Your task to perform on an android device: toggle translation in the chrome app Image 0: 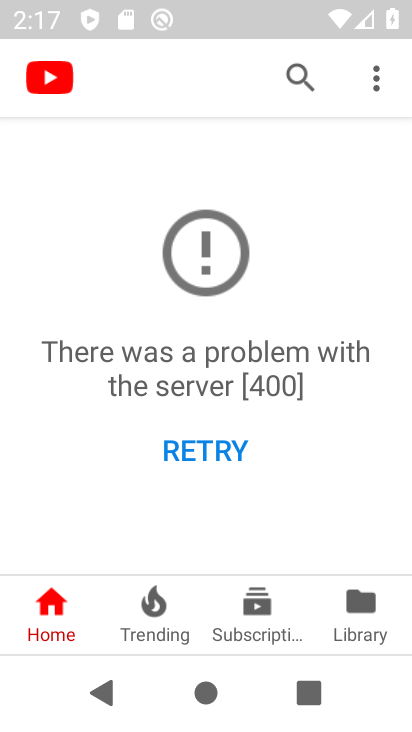
Step 0: press home button
Your task to perform on an android device: toggle translation in the chrome app Image 1: 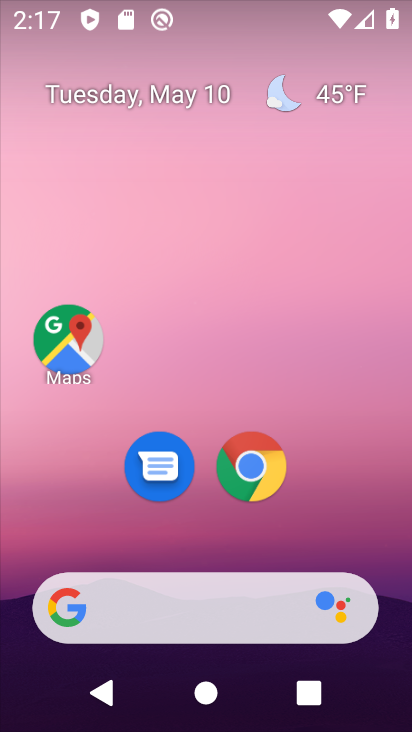
Step 1: click (243, 469)
Your task to perform on an android device: toggle translation in the chrome app Image 2: 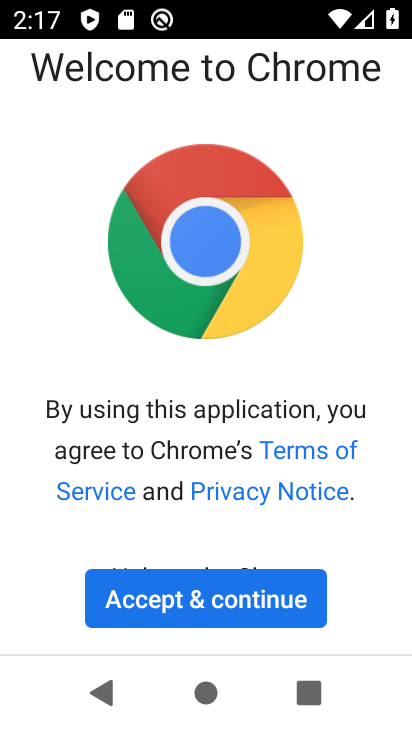
Step 2: click (281, 596)
Your task to perform on an android device: toggle translation in the chrome app Image 3: 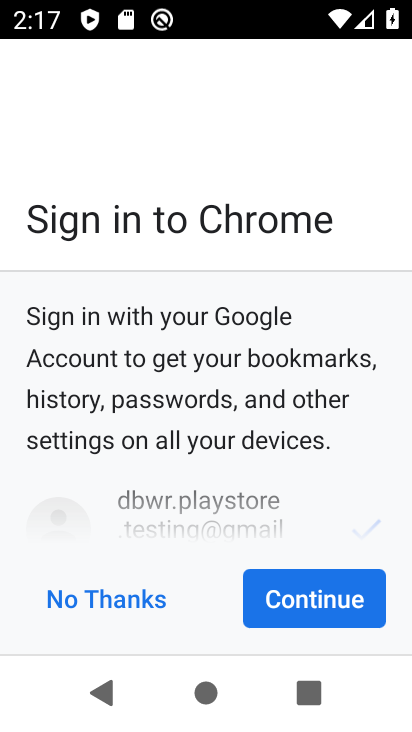
Step 3: click (298, 600)
Your task to perform on an android device: toggle translation in the chrome app Image 4: 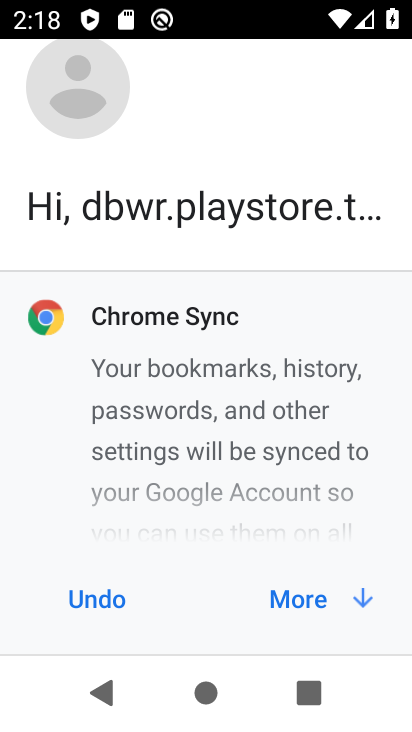
Step 4: click (298, 600)
Your task to perform on an android device: toggle translation in the chrome app Image 5: 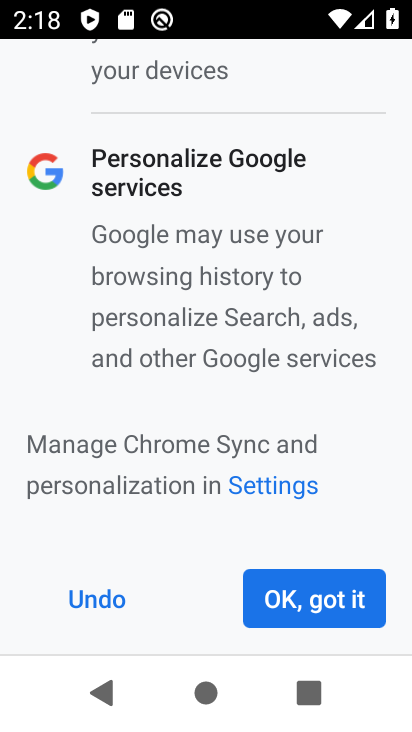
Step 5: click (298, 600)
Your task to perform on an android device: toggle translation in the chrome app Image 6: 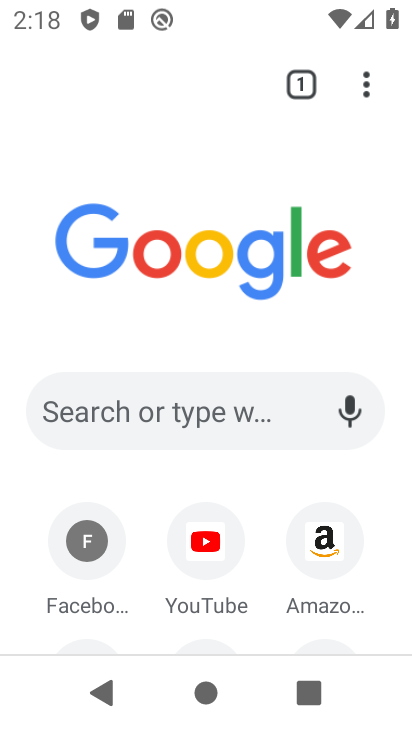
Step 6: click (361, 82)
Your task to perform on an android device: toggle translation in the chrome app Image 7: 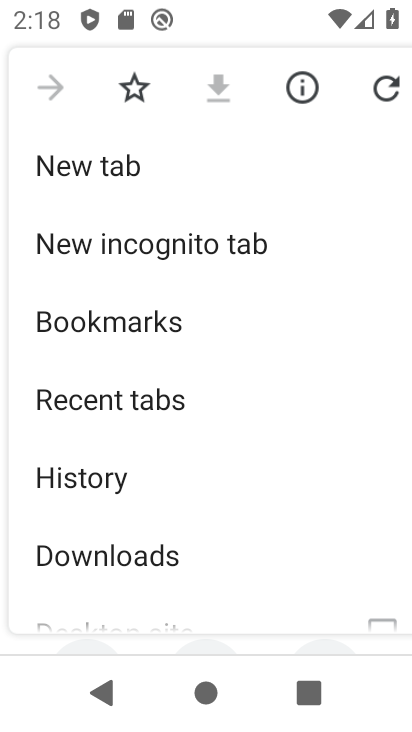
Step 7: drag from (290, 594) to (272, 334)
Your task to perform on an android device: toggle translation in the chrome app Image 8: 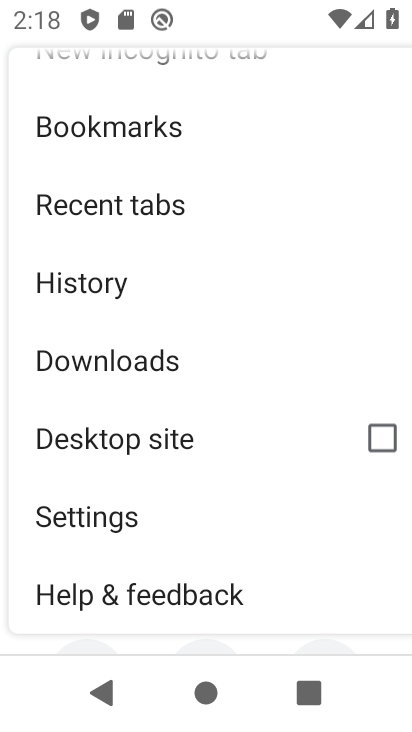
Step 8: click (83, 517)
Your task to perform on an android device: toggle translation in the chrome app Image 9: 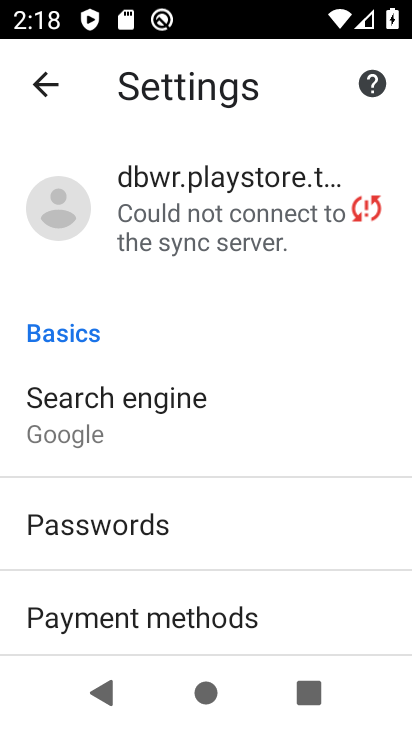
Step 9: drag from (303, 427) to (302, 338)
Your task to perform on an android device: toggle translation in the chrome app Image 10: 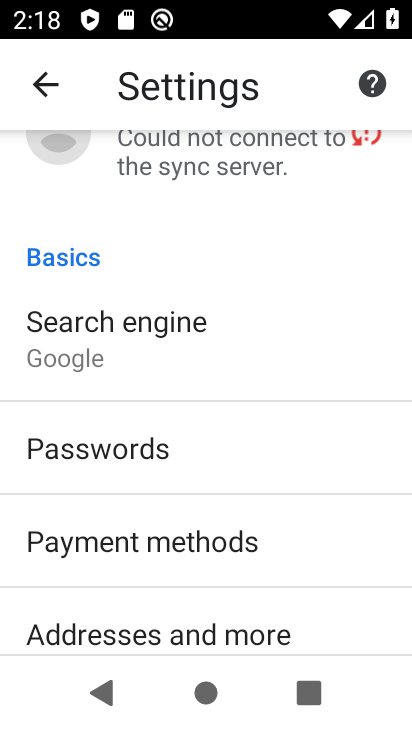
Step 10: drag from (338, 644) to (330, 320)
Your task to perform on an android device: toggle translation in the chrome app Image 11: 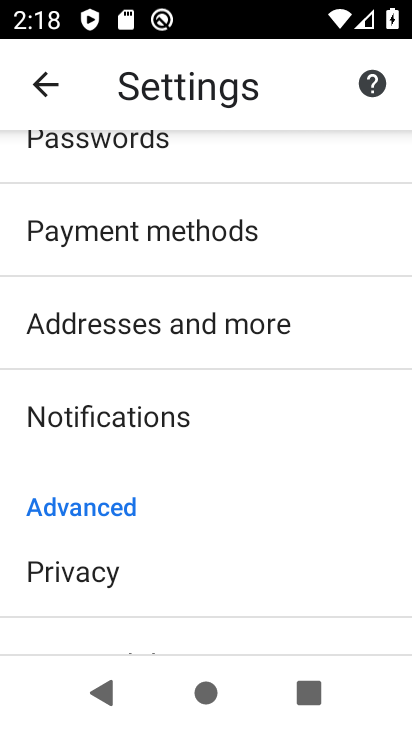
Step 11: drag from (308, 485) to (290, 331)
Your task to perform on an android device: toggle translation in the chrome app Image 12: 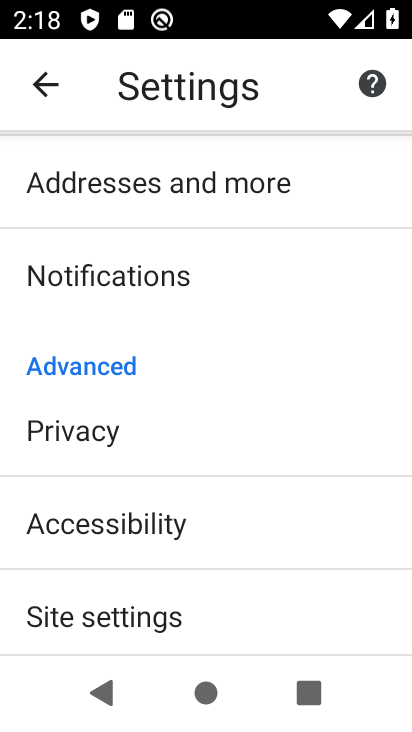
Step 12: drag from (281, 634) to (269, 365)
Your task to perform on an android device: toggle translation in the chrome app Image 13: 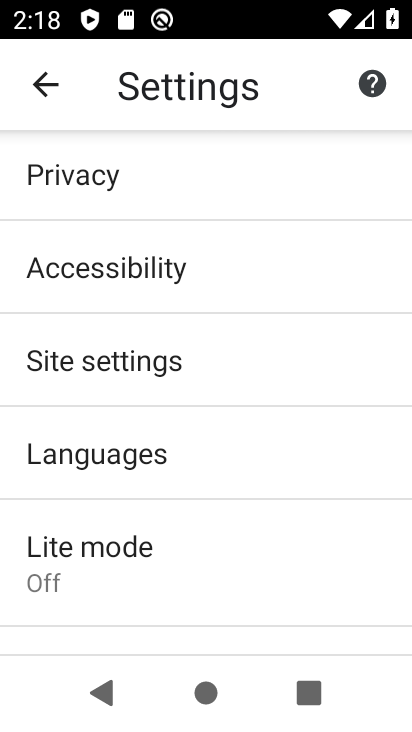
Step 13: click (108, 462)
Your task to perform on an android device: toggle translation in the chrome app Image 14: 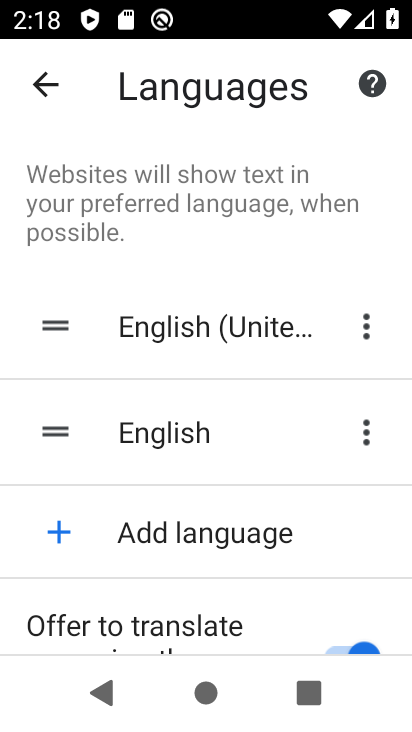
Step 14: drag from (302, 623) to (336, 395)
Your task to perform on an android device: toggle translation in the chrome app Image 15: 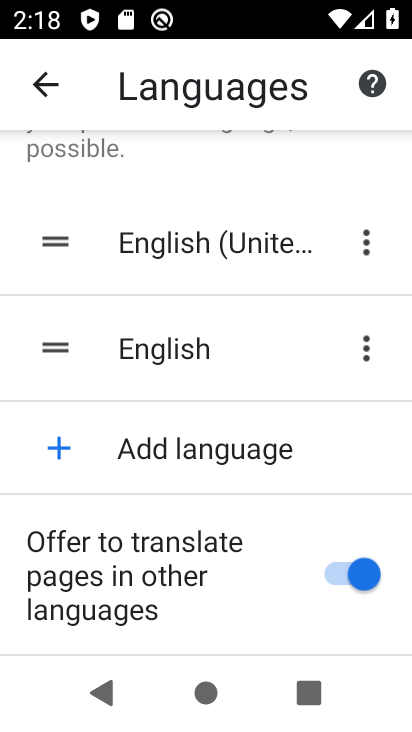
Step 15: click (335, 580)
Your task to perform on an android device: toggle translation in the chrome app Image 16: 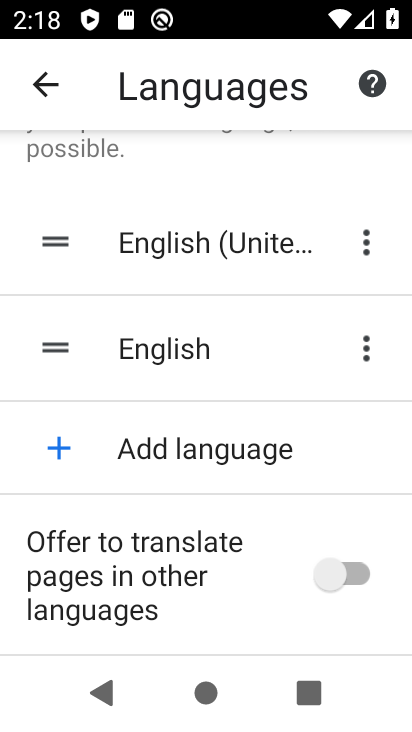
Step 16: task complete